Your task to perform on an android device: Google the capital of Canada Image 0: 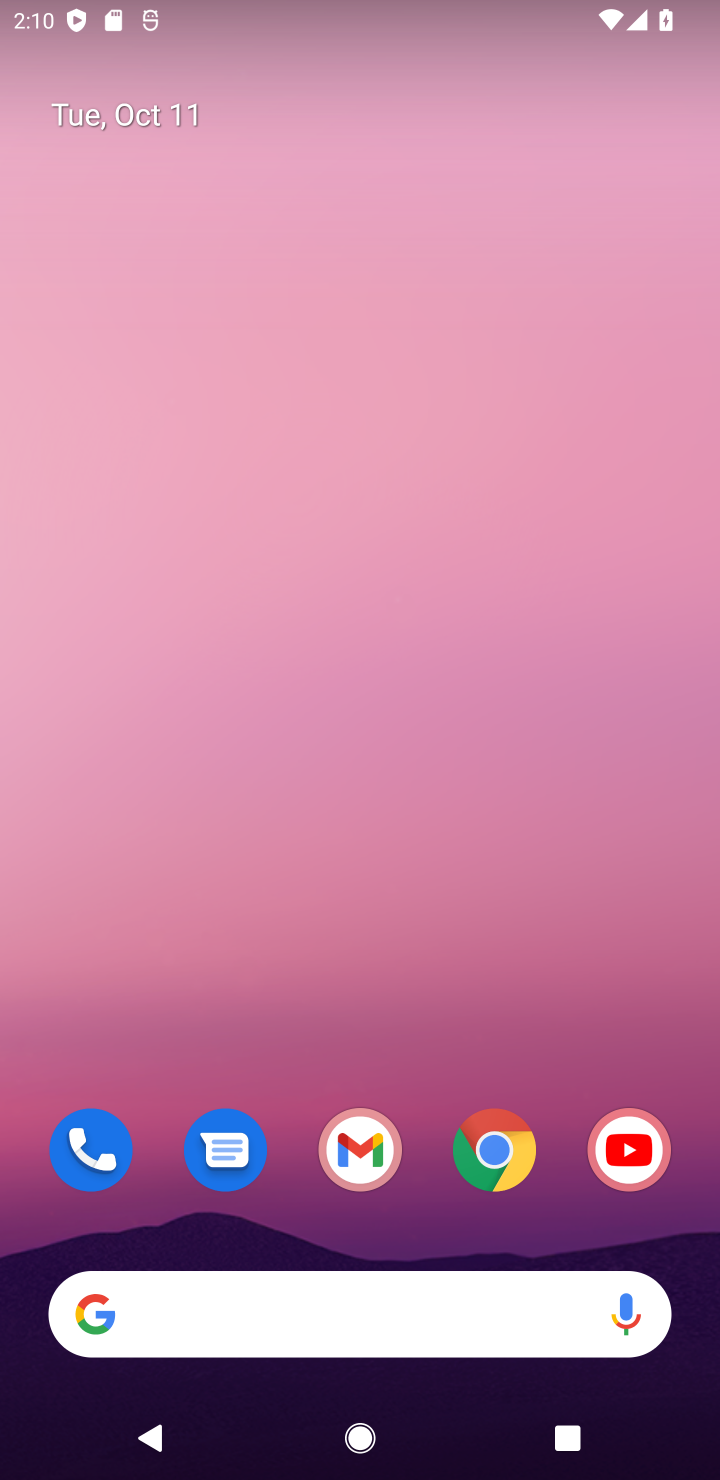
Step 0: drag from (363, 747) to (371, 291)
Your task to perform on an android device: Google the capital of Canada Image 1: 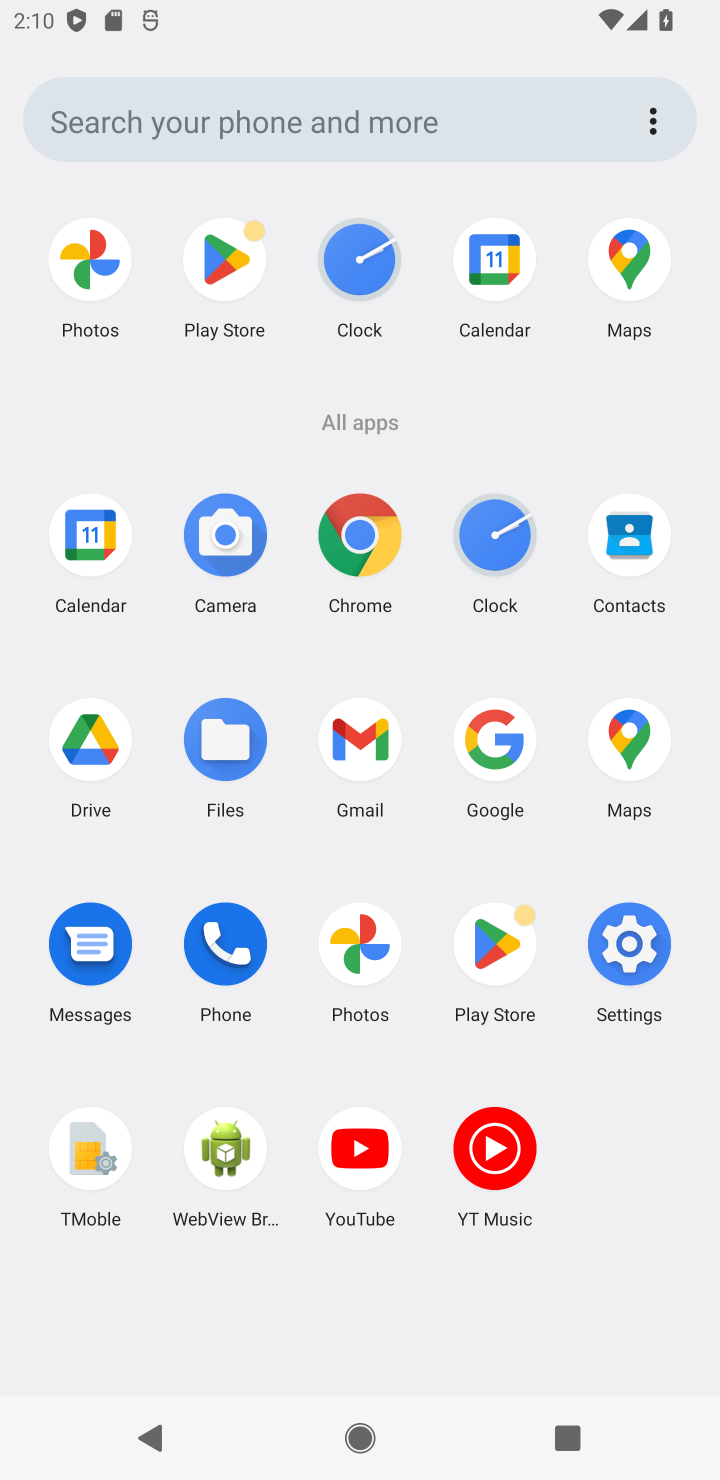
Step 1: click (479, 751)
Your task to perform on an android device: Google the capital of Canada Image 2: 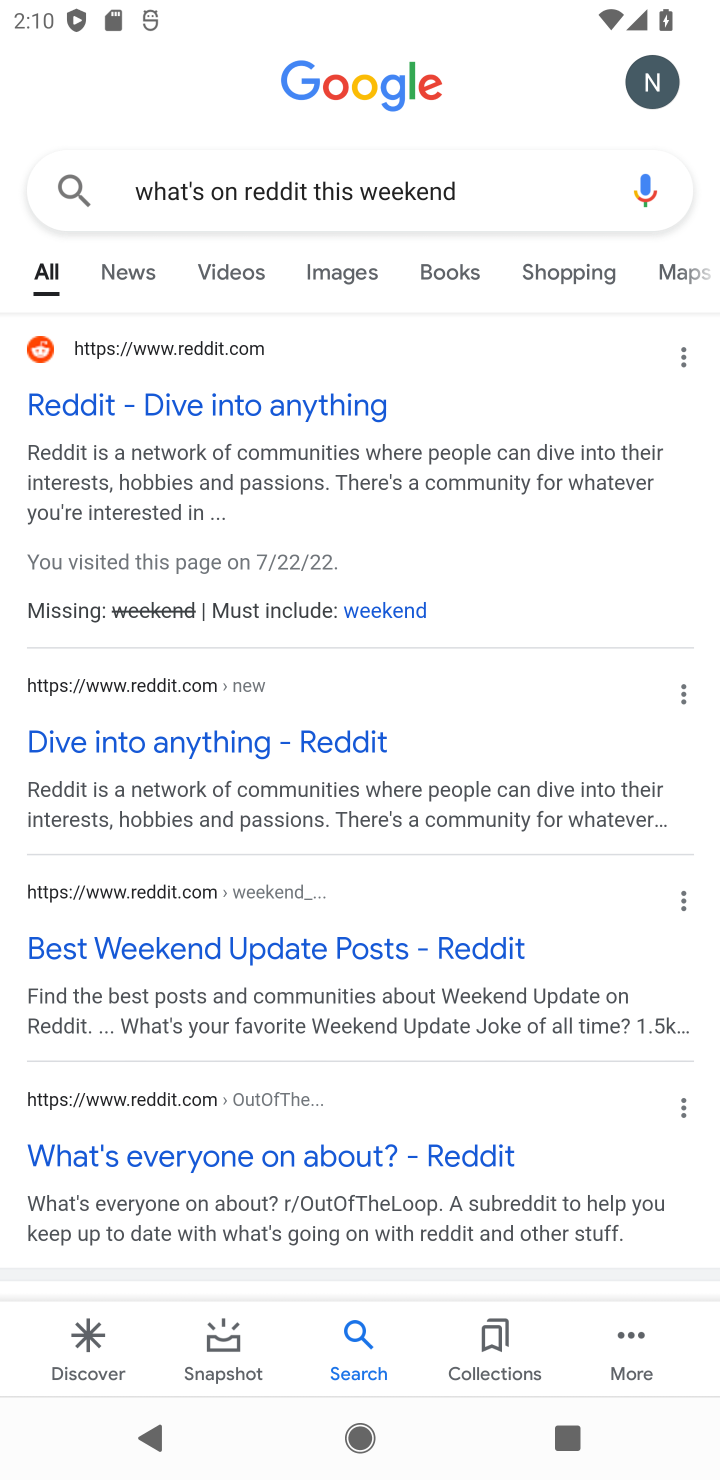
Step 2: click (393, 193)
Your task to perform on an android device: Google the capital of Canada Image 3: 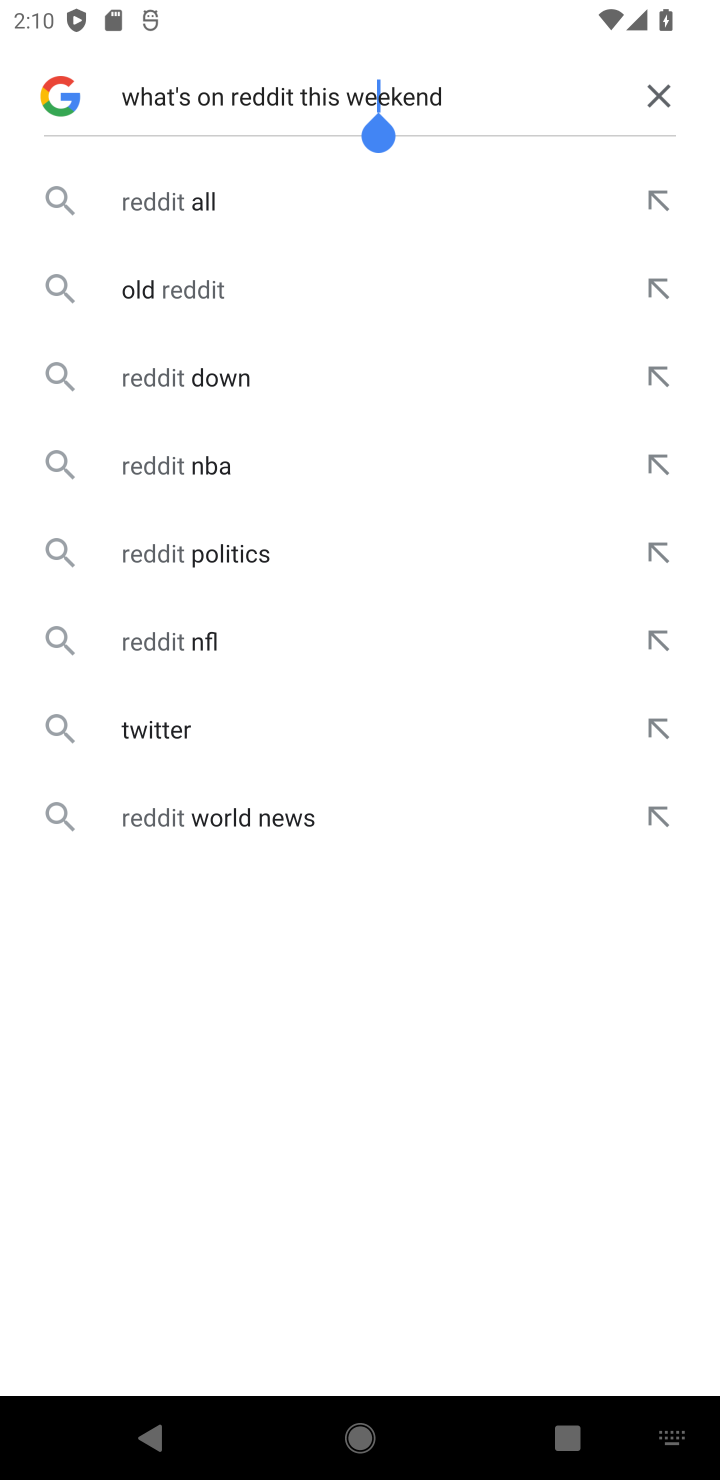
Step 3: click (659, 89)
Your task to perform on an android device: Google the capital of Canada Image 4: 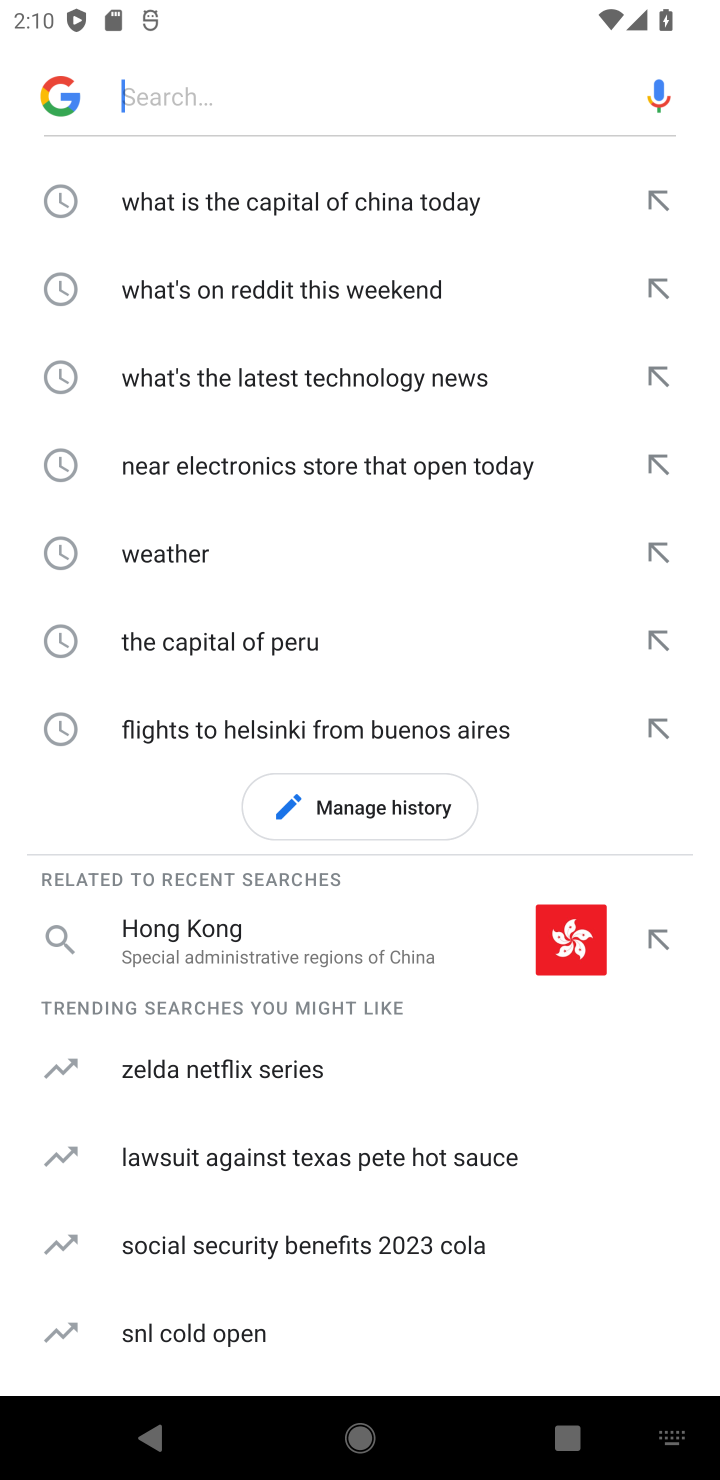
Step 4: type "Google the capital of Canada"
Your task to perform on an android device: Google the capital of Canada Image 5: 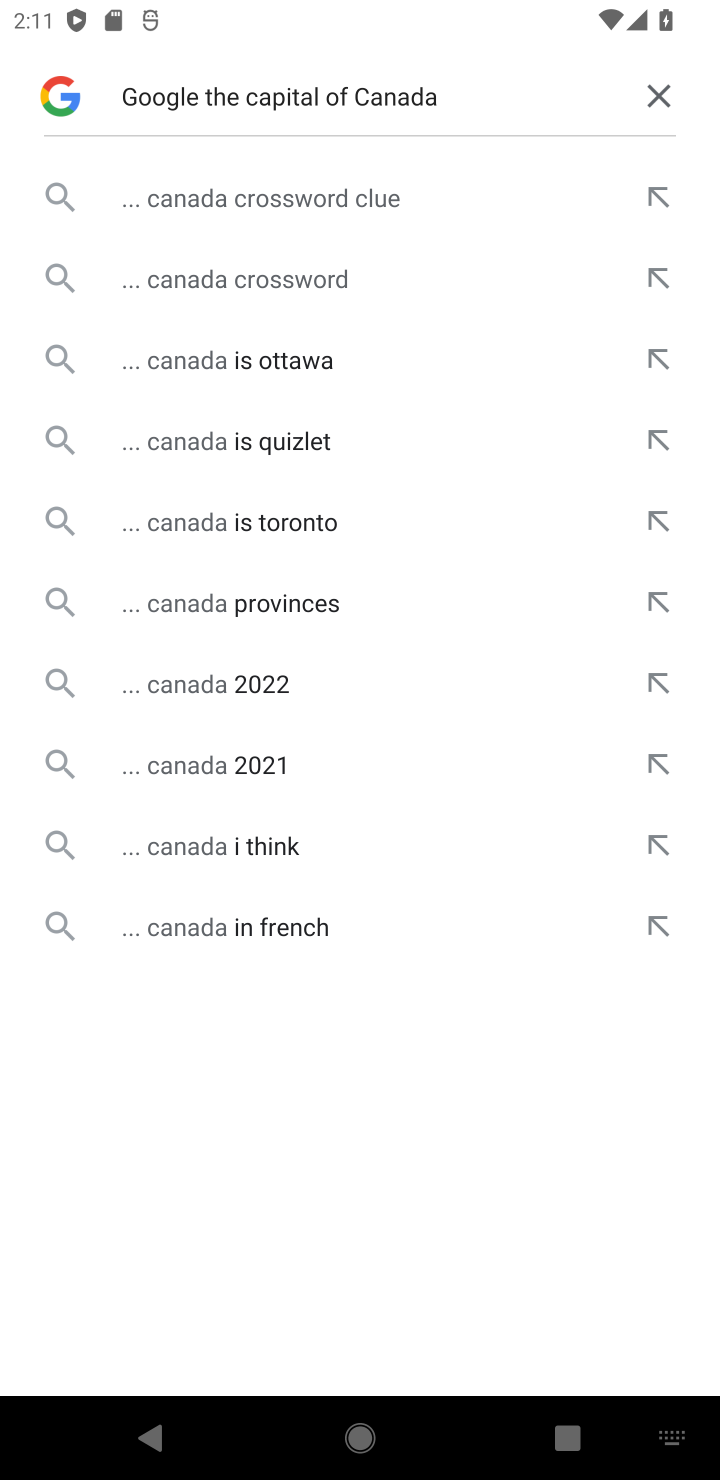
Step 5: click (297, 202)
Your task to perform on an android device: Google the capital of Canada Image 6: 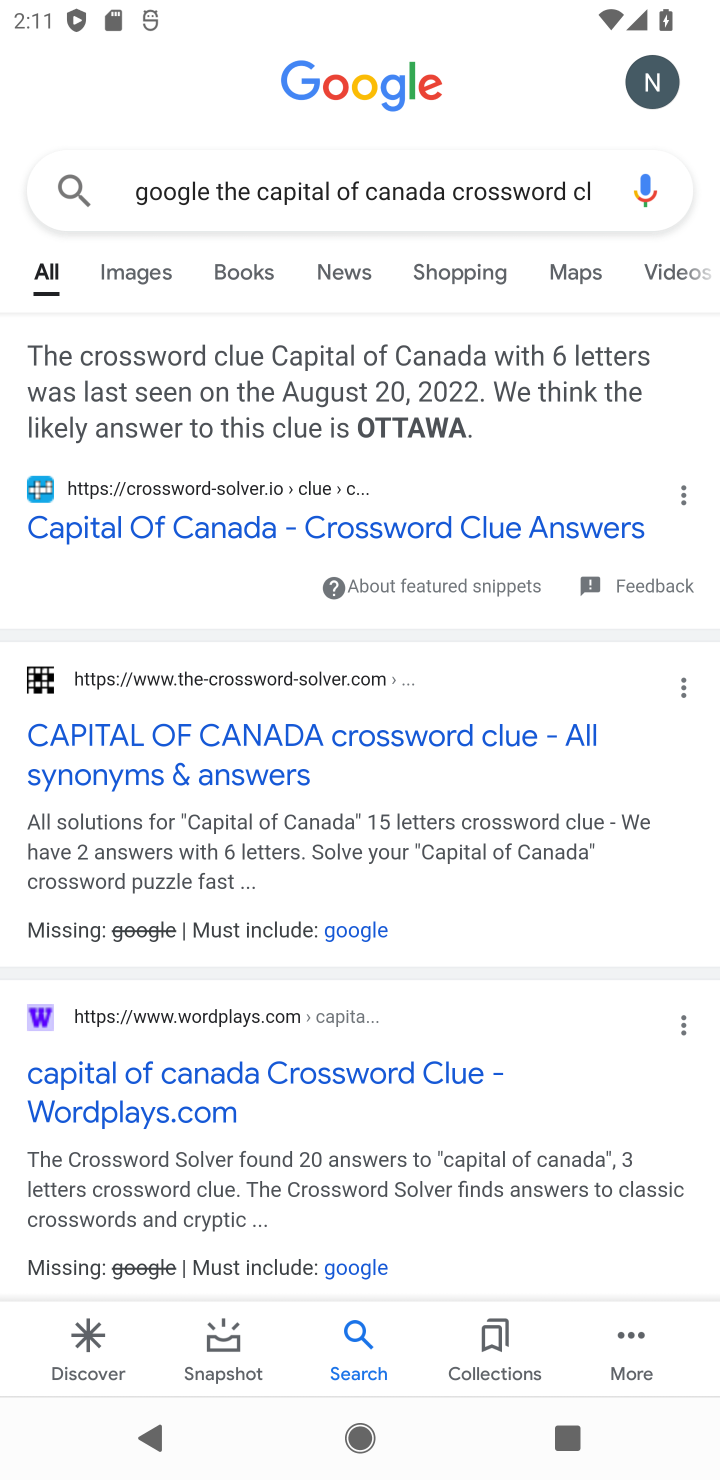
Step 6: task complete